Your task to perform on an android device: turn off improve location accuracy Image 0: 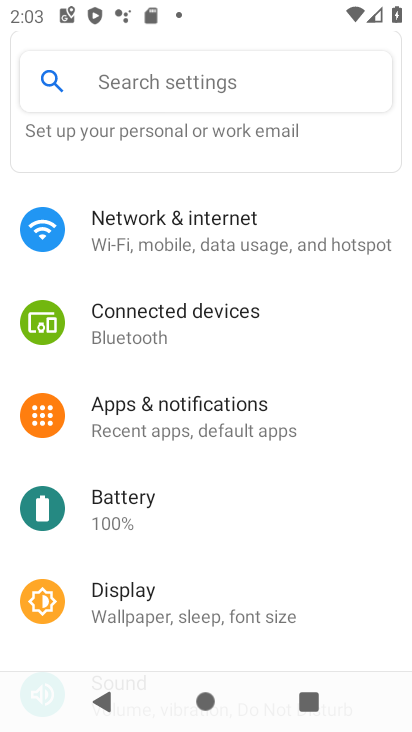
Step 0: drag from (246, 549) to (246, 42)
Your task to perform on an android device: turn off improve location accuracy Image 1: 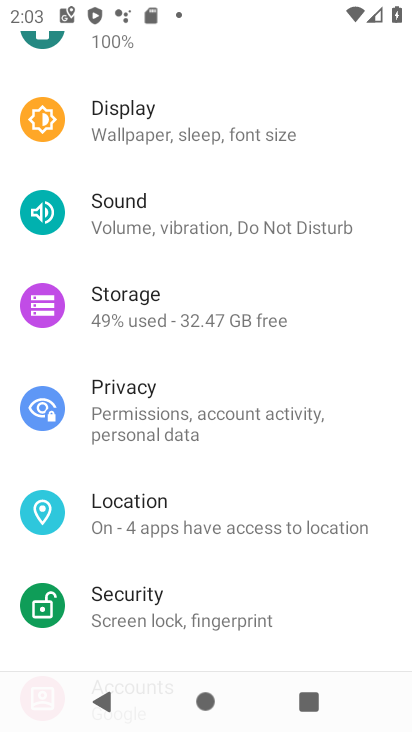
Step 1: click (203, 521)
Your task to perform on an android device: turn off improve location accuracy Image 2: 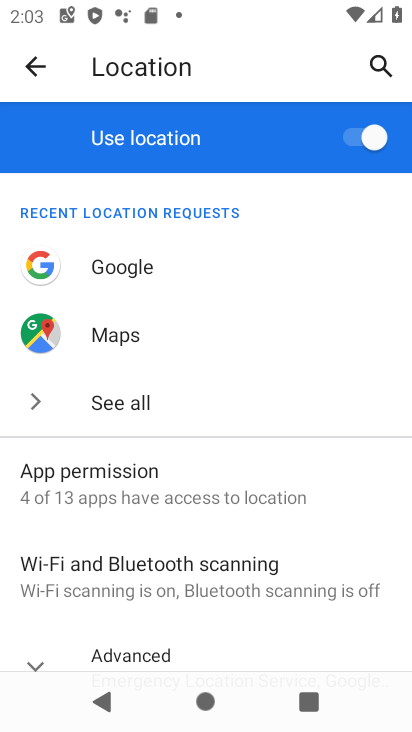
Step 2: drag from (253, 421) to (306, 166)
Your task to perform on an android device: turn off improve location accuracy Image 3: 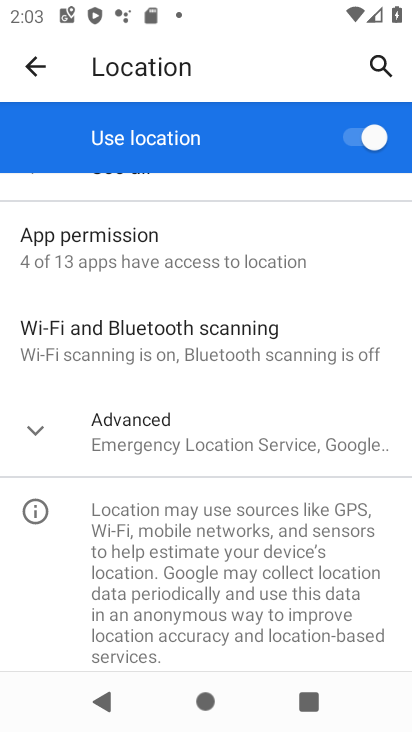
Step 3: click (34, 426)
Your task to perform on an android device: turn off improve location accuracy Image 4: 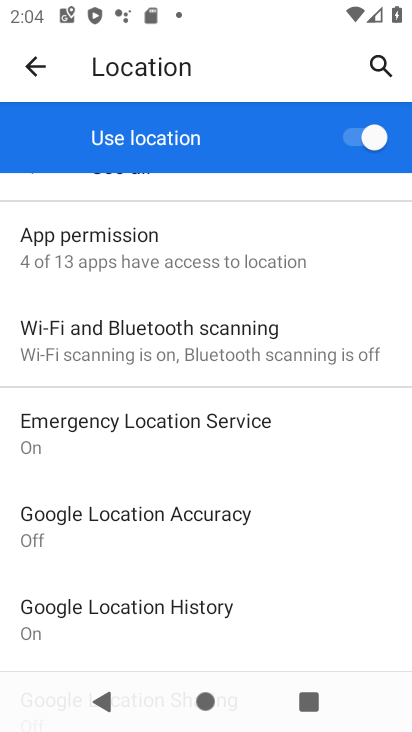
Step 4: task complete